Your task to perform on an android device: turn off improve location accuracy Image 0: 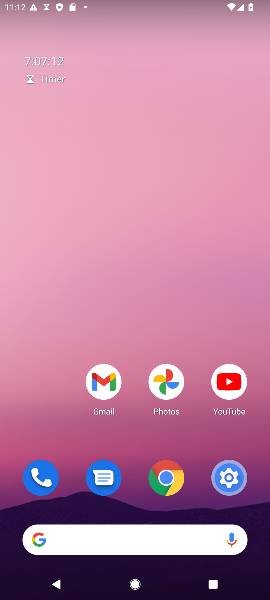
Step 0: click (230, 468)
Your task to perform on an android device: turn off improve location accuracy Image 1: 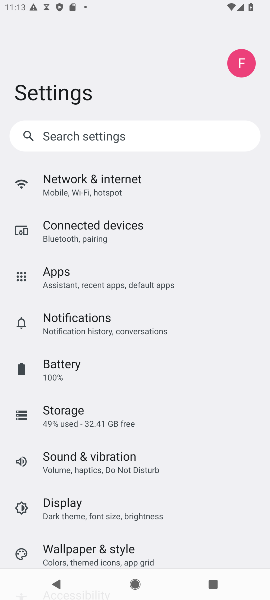
Step 1: drag from (154, 526) to (107, 122)
Your task to perform on an android device: turn off improve location accuracy Image 2: 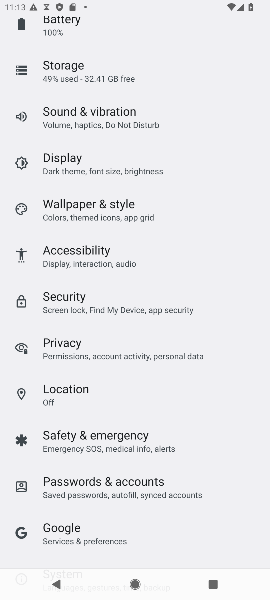
Step 2: drag from (130, 87) to (137, 190)
Your task to perform on an android device: turn off improve location accuracy Image 3: 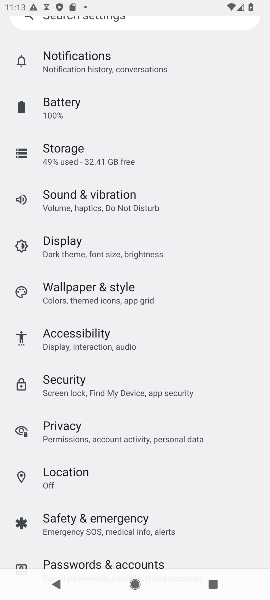
Step 3: click (125, 469)
Your task to perform on an android device: turn off improve location accuracy Image 4: 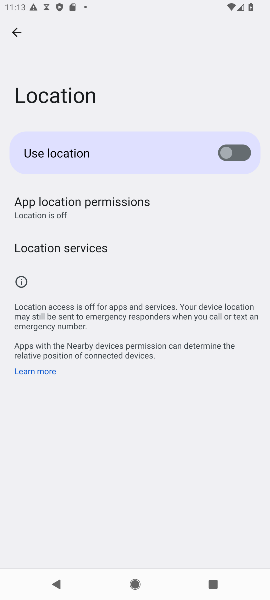
Step 4: task complete